Your task to perform on an android device: Open the Play Movies app and select the watchlist tab. Image 0: 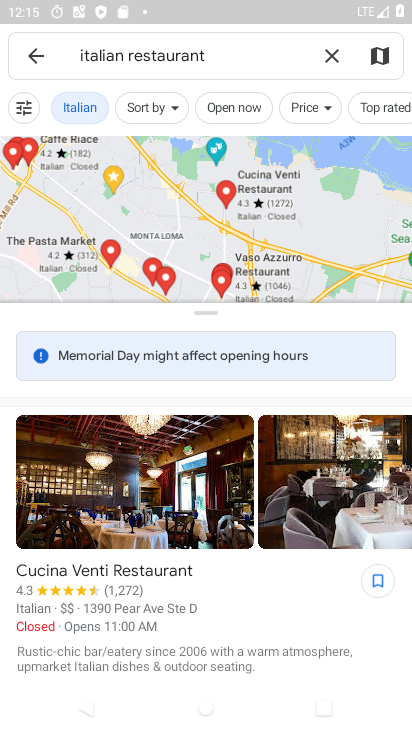
Step 0: press home button
Your task to perform on an android device: Open the Play Movies app and select the watchlist tab. Image 1: 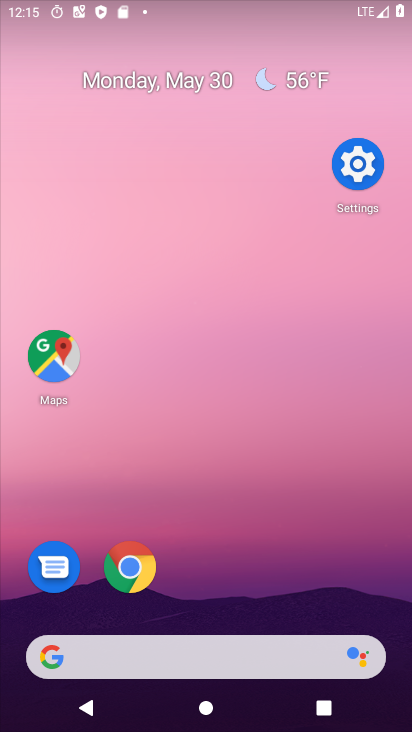
Step 1: drag from (308, 471) to (266, 199)
Your task to perform on an android device: Open the Play Movies app and select the watchlist tab. Image 2: 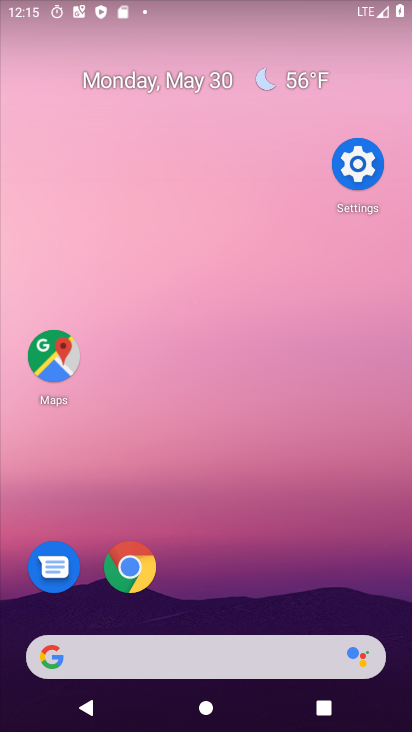
Step 2: drag from (280, 493) to (241, 182)
Your task to perform on an android device: Open the Play Movies app and select the watchlist tab. Image 3: 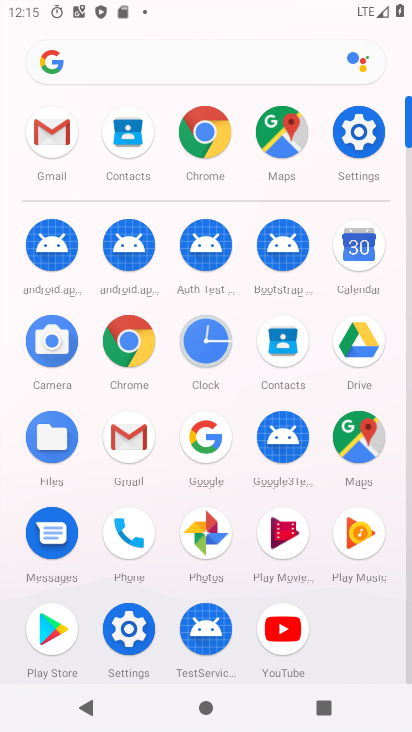
Step 3: click (291, 541)
Your task to perform on an android device: Open the Play Movies app and select the watchlist tab. Image 4: 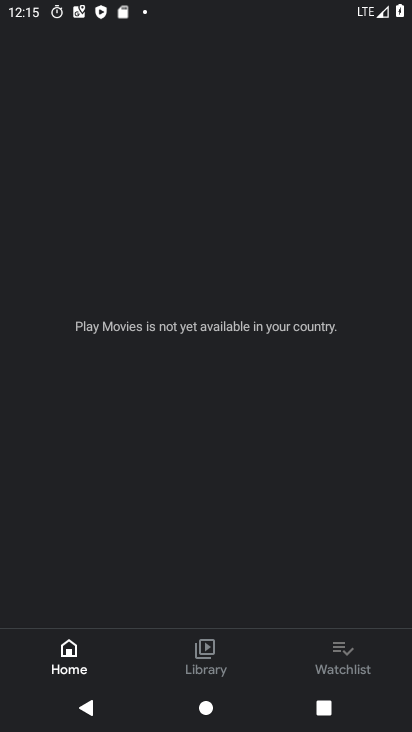
Step 4: click (327, 670)
Your task to perform on an android device: Open the Play Movies app and select the watchlist tab. Image 5: 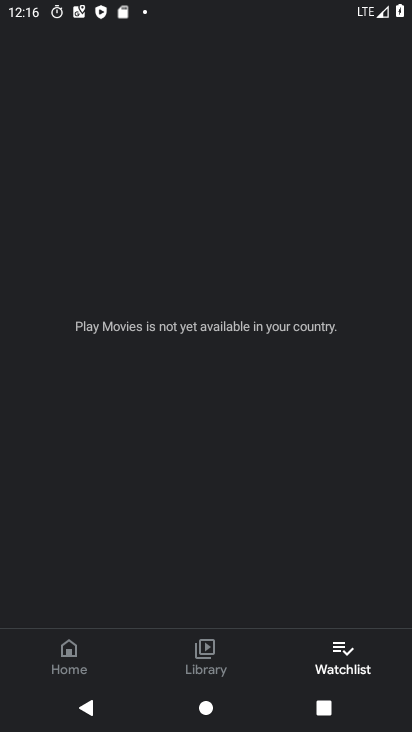
Step 5: task complete